Your task to perform on an android device: Open CNN.com Image 0: 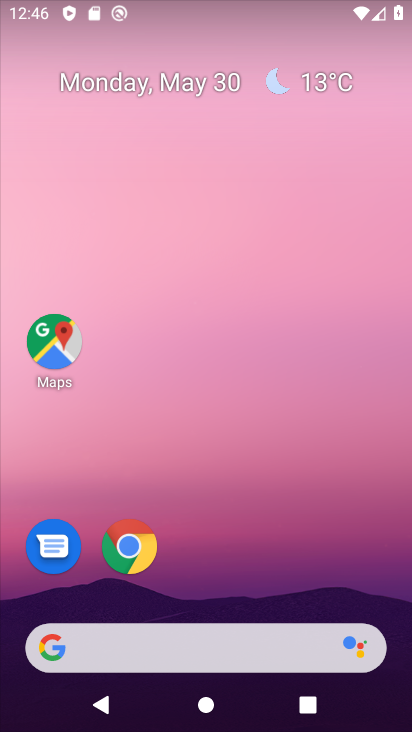
Step 0: press home button
Your task to perform on an android device: Open CNN.com Image 1: 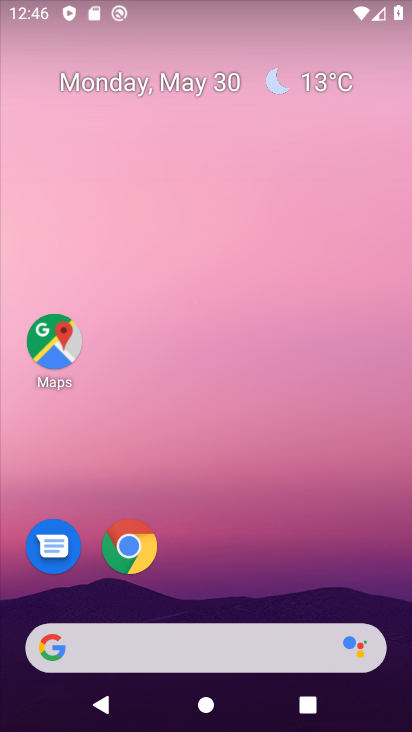
Step 1: click (56, 646)
Your task to perform on an android device: Open CNN.com Image 2: 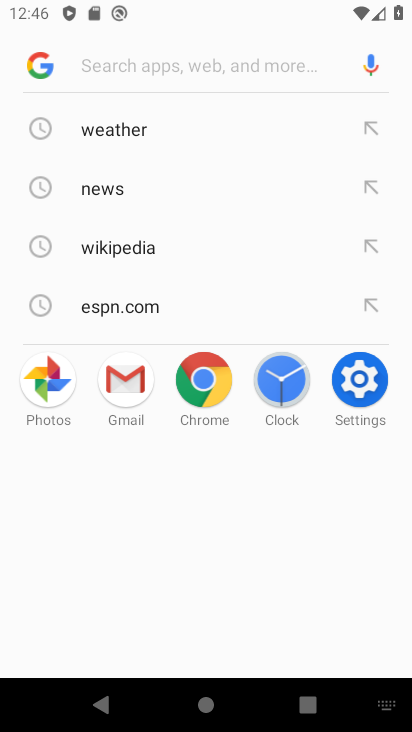
Step 2: type "CNN.com"
Your task to perform on an android device: Open CNN.com Image 3: 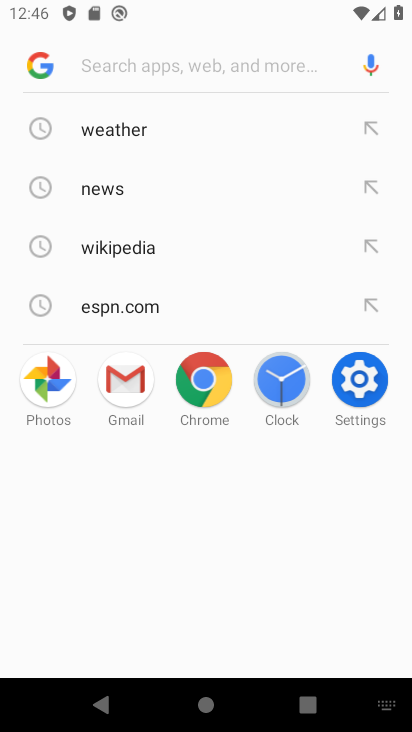
Step 3: click (105, 64)
Your task to perform on an android device: Open CNN.com Image 4: 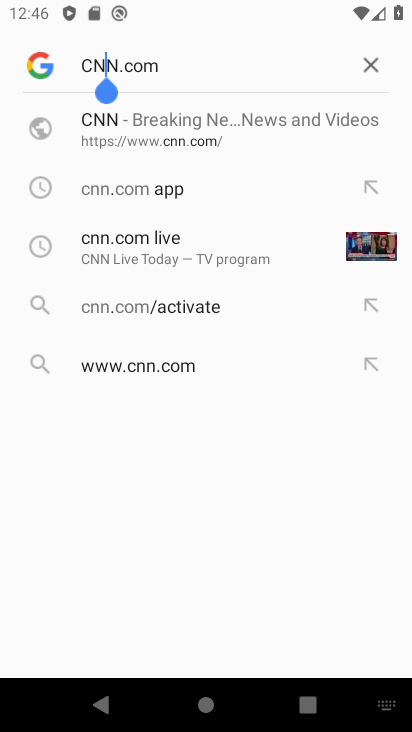
Step 4: click (165, 124)
Your task to perform on an android device: Open CNN.com Image 5: 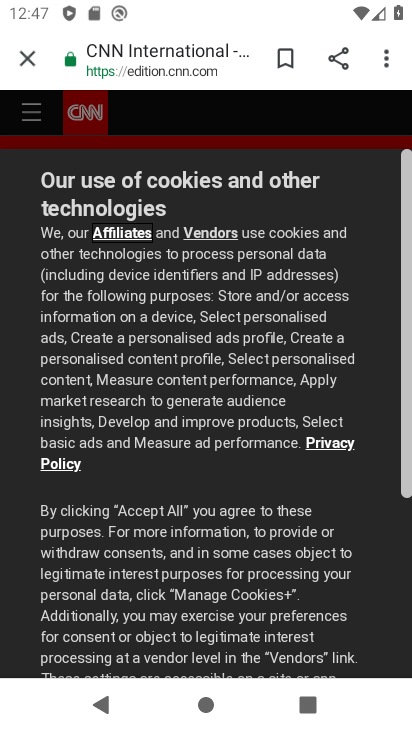
Step 5: task complete